Your task to perform on an android device: toggle data saver in the chrome app Image 0: 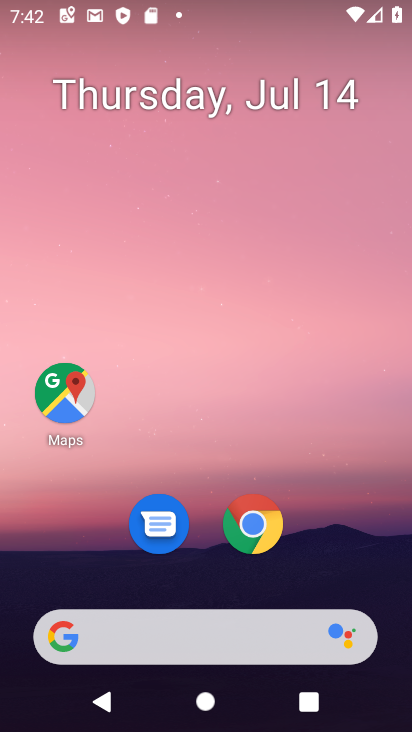
Step 0: click (266, 516)
Your task to perform on an android device: toggle data saver in the chrome app Image 1: 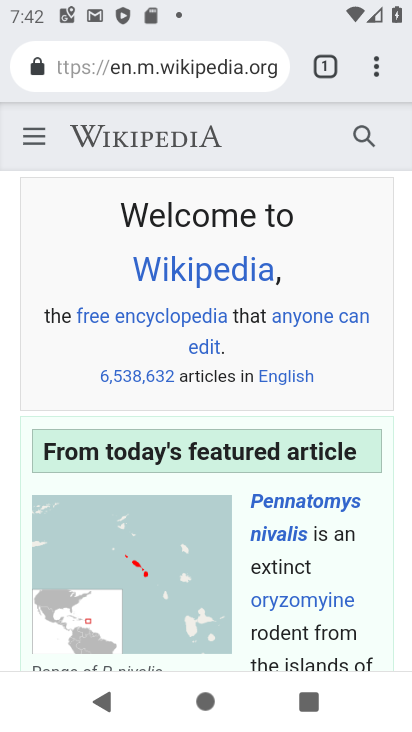
Step 1: click (375, 65)
Your task to perform on an android device: toggle data saver in the chrome app Image 2: 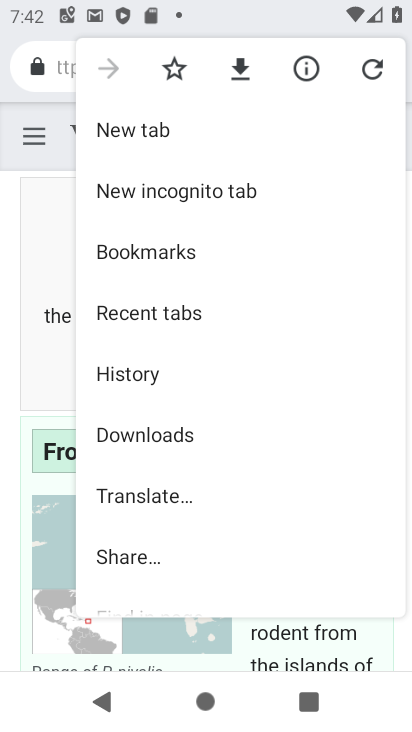
Step 2: drag from (254, 487) to (276, 167)
Your task to perform on an android device: toggle data saver in the chrome app Image 3: 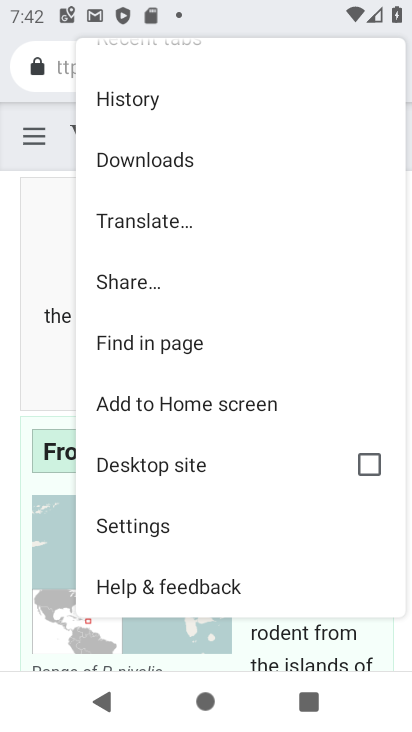
Step 3: click (156, 518)
Your task to perform on an android device: toggle data saver in the chrome app Image 4: 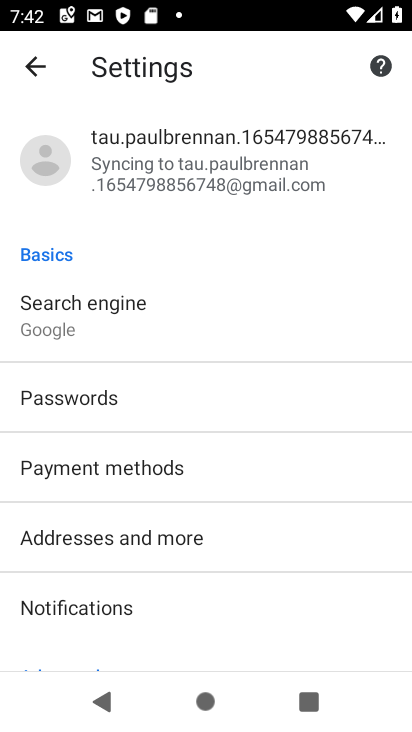
Step 4: drag from (231, 549) to (301, 193)
Your task to perform on an android device: toggle data saver in the chrome app Image 5: 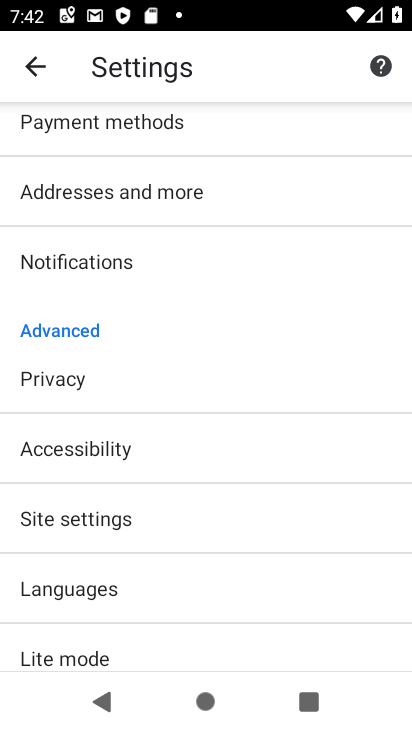
Step 5: drag from (209, 557) to (221, 376)
Your task to perform on an android device: toggle data saver in the chrome app Image 6: 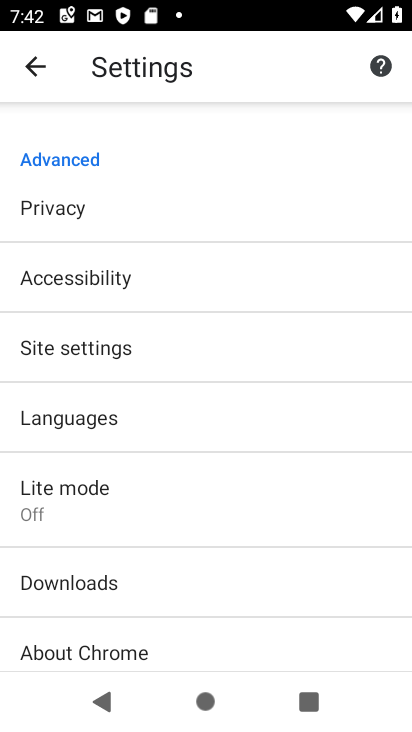
Step 6: click (133, 498)
Your task to perform on an android device: toggle data saver in the chrome app Image 7: 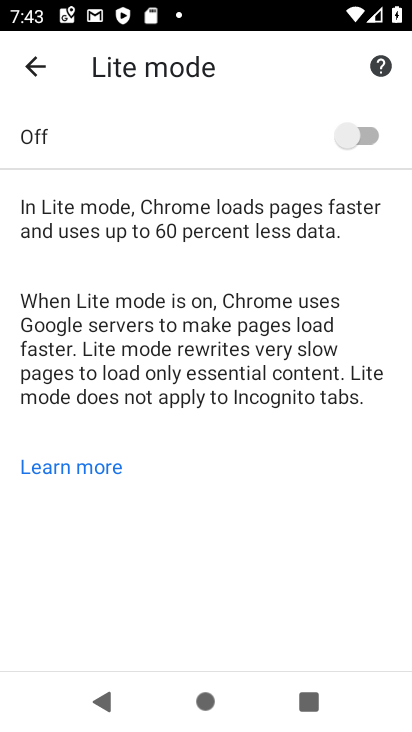
Step 7: click (357, 134)
Your task to perform on an android device: toggle data saver in the chrome app Image 8: 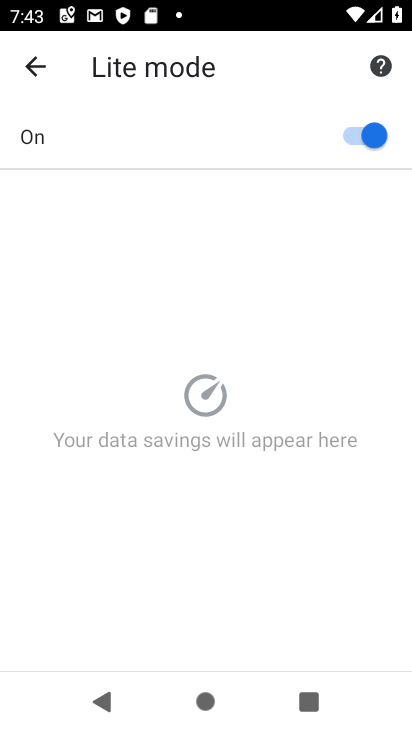
Step 8: task complete